Your task to perform on an android device: Show me popular games on the Play Store Image 0: 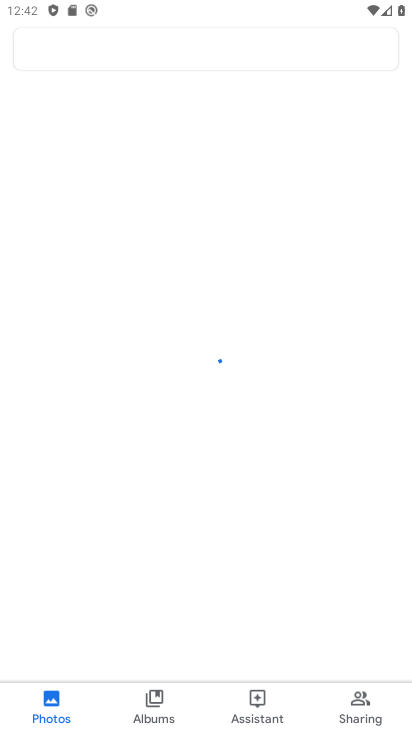
Step 0: press home button
Your task to perform on an android device: Show me popular games on the Play Store Image 1: 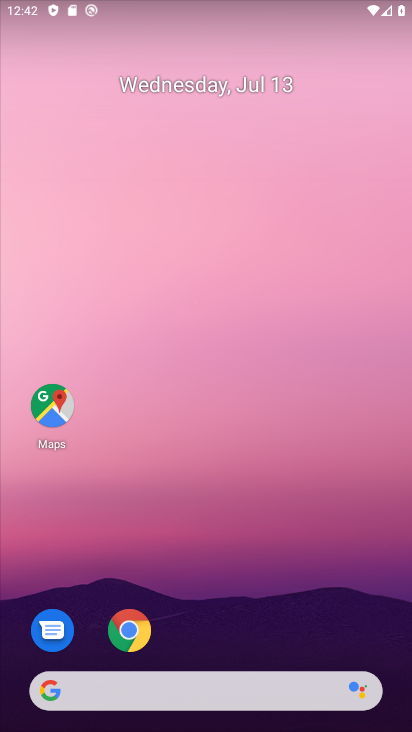
Step 1: drag from (295, 487) to (279, 138)
Your task to perform on an android device: Show me popular games on the Play Store Image 2: 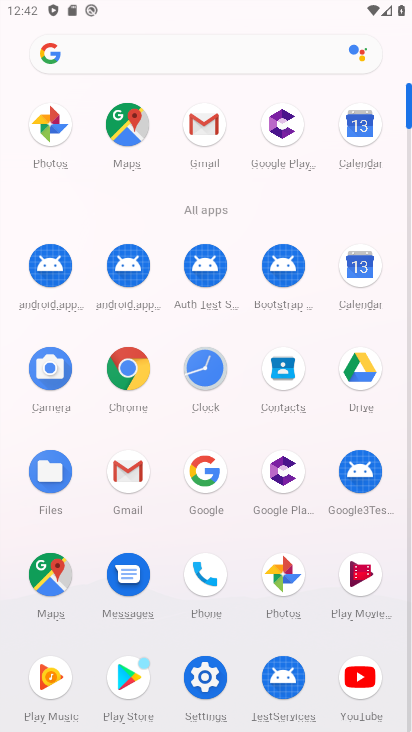
Step 2: click (143, 673)
Your task to perform on an android device: Show me popular games on the Play Store Image 3: 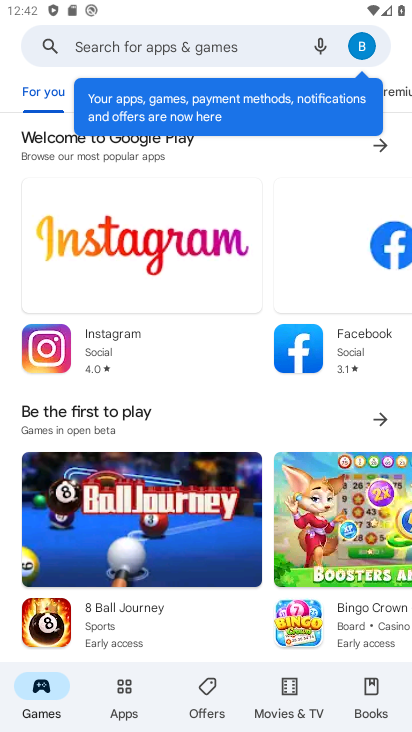
Step 3: click (186, 38)
Your task to perform on an android device: Show me popular games on the Play Store Image 4: 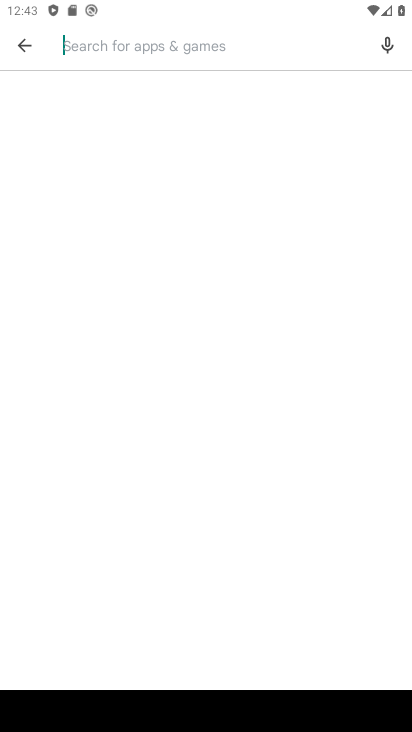
Step 4: type " popular games"
Your task to perform on an android device: Show me popular games on the Play Store Image 5: 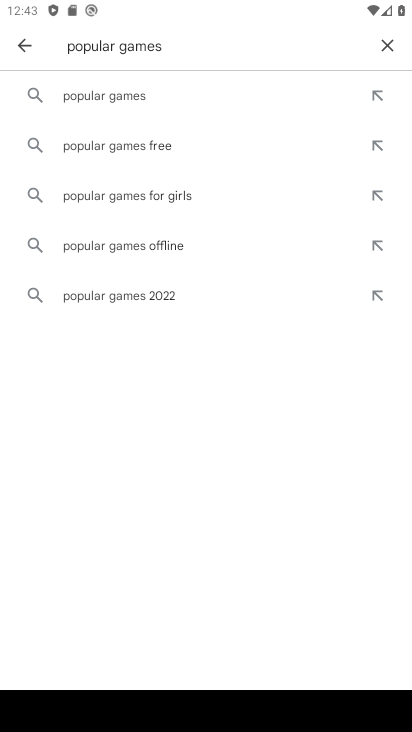
Step 5: press enter
Your task to perform on an android device: Show me popular games on the Play Store Image 6: 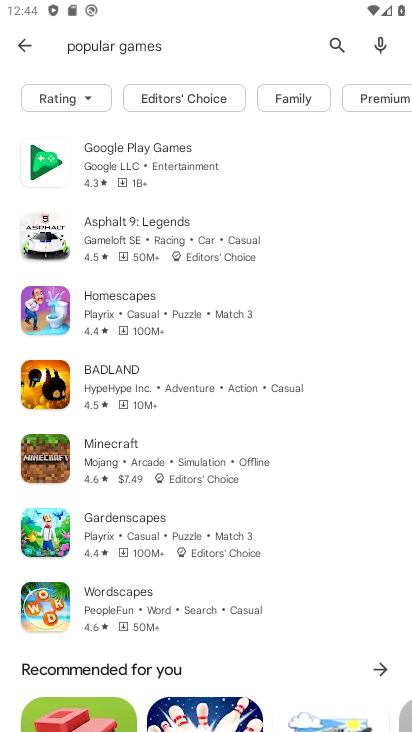
Step 6: task complete